Your task to perform on an android device: add a contact Image 0: 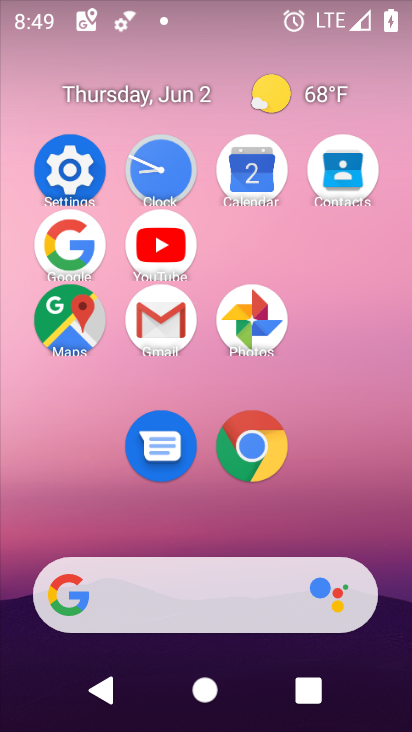
Step 0: click (345, 179)
Your task to perform on an android device: add a contact Image 1: 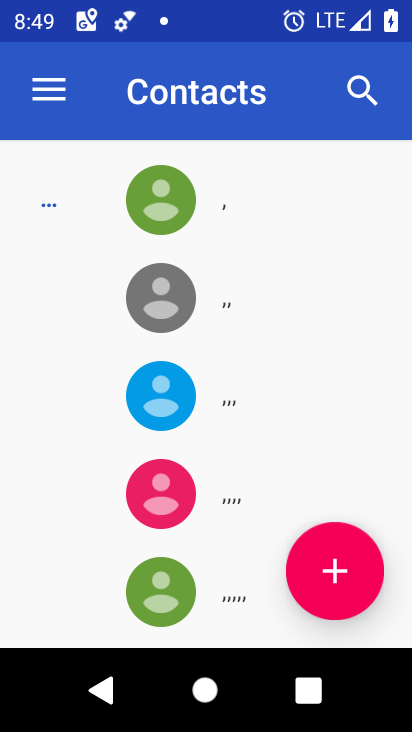
Step 1: click (326, 565)
Your task to perform on an android device: add a contact Image 2: 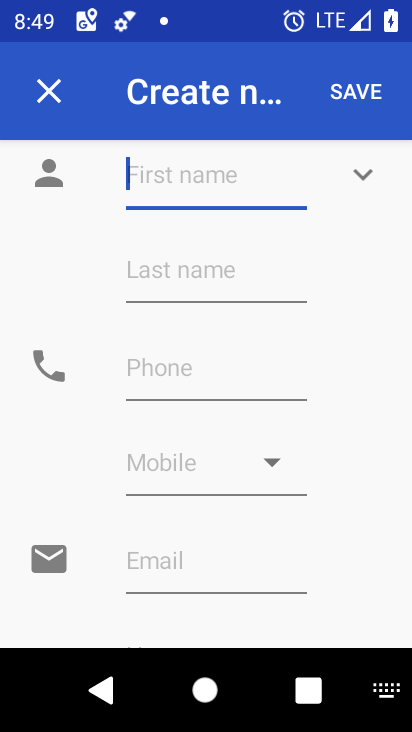
Step 2: click (195, 194)
Your task to perform on an android device: add a contact Image 3: 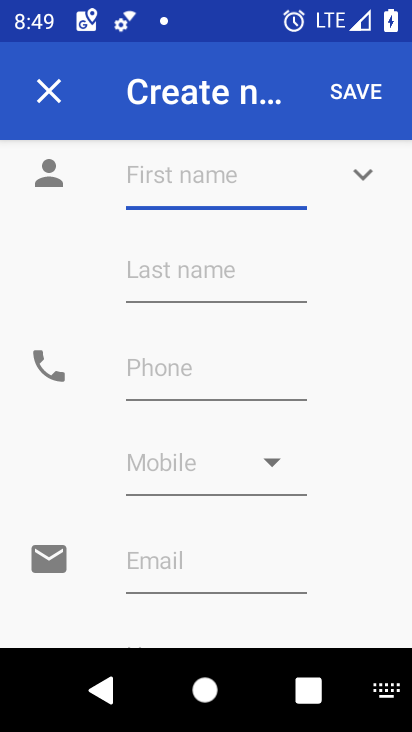
Step 3: type "pit"
Your task to perform on an android device: add a contact Image 4: 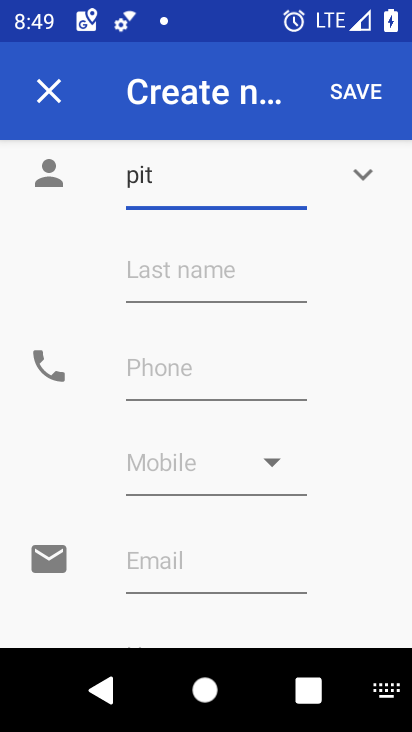
Step 4: click (195, 377)
Your task to perform on an android device: add a contact Image 5: 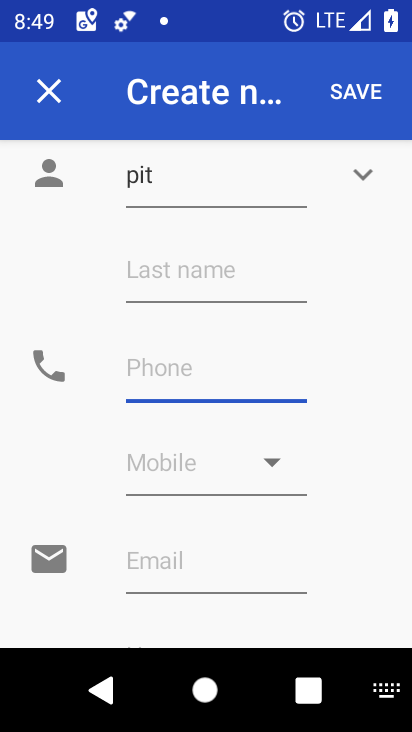
Step 5: type "99976545323"
Your task to perform on an android device: add a contact Image 6: 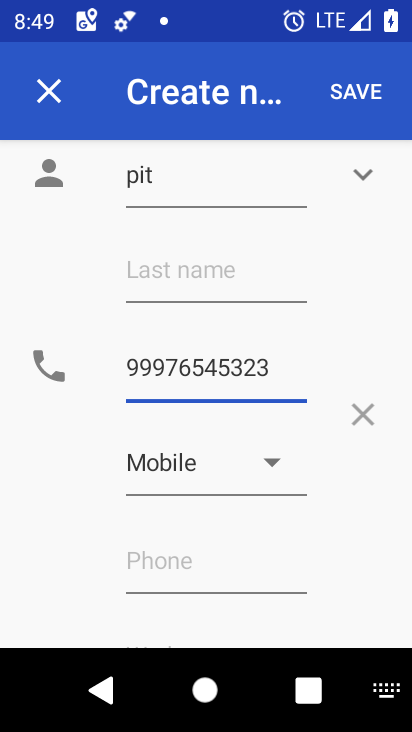
Step 6: click (375, 88)
Your task to perform on an android device: add a contact Image 7: 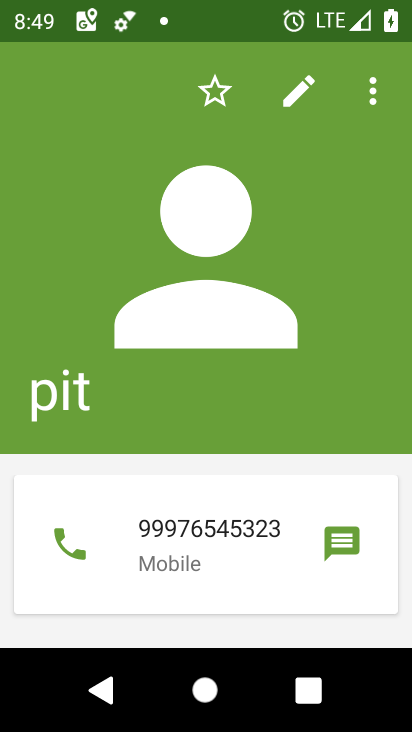
Step 7: task complete